Your task to perform on an android device: check google app version Image 0: 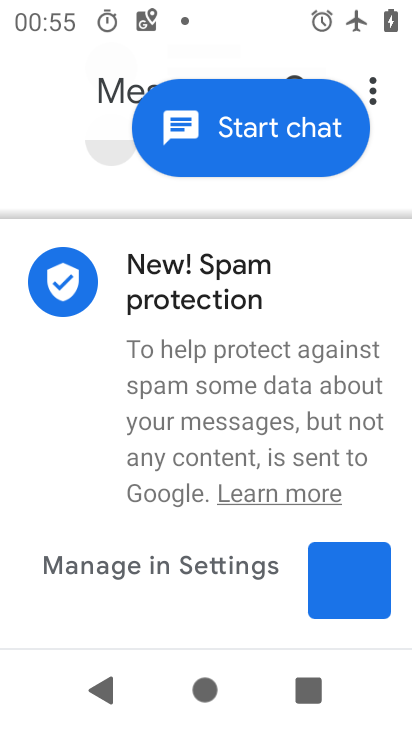
Step 0: press home button
Your task to perform on an android device: check google app version Image 1: 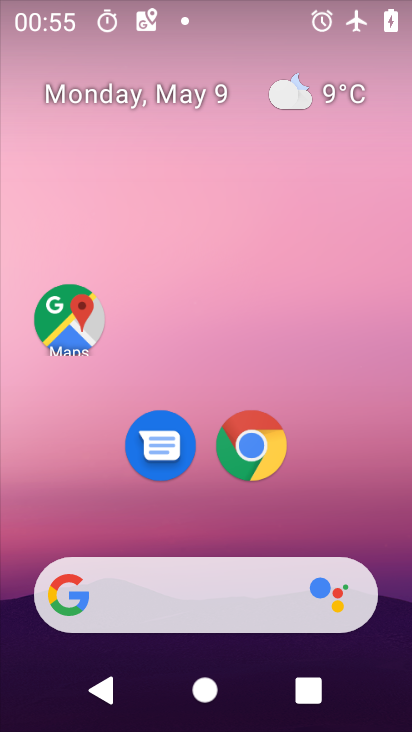
Step 1: drag from (380, 526) to (351, 13)
Your task to perform on an android device: check google app version Image 2: 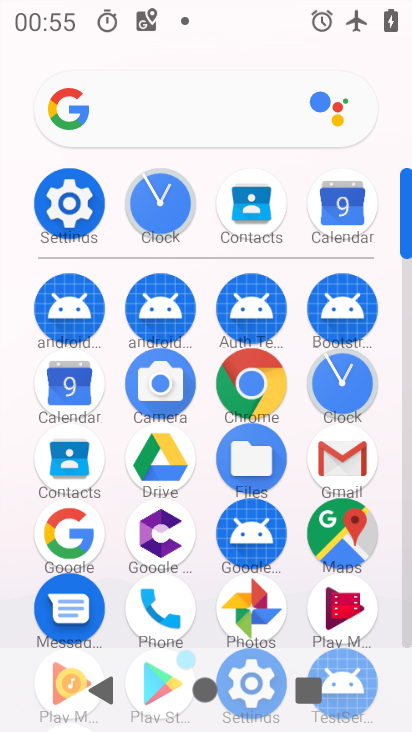
Step 2: click (72, 535)
Your task to perform on an android device: check google app version Image 3: 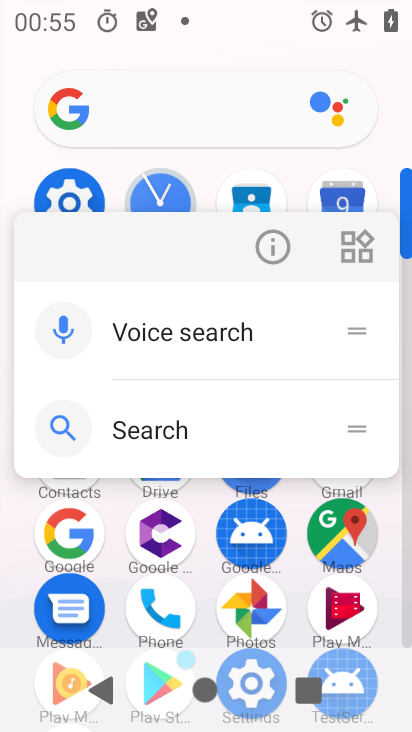
Step 3: click (268, 254)
Your task to perform on an android device: check google app version Image 4: 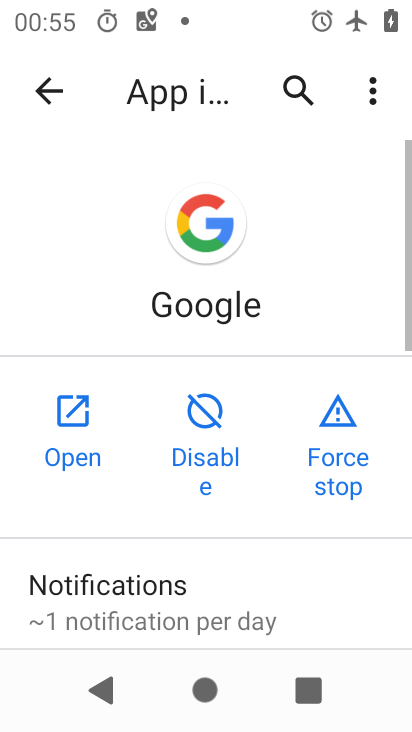
Step 4: drag from (212, 537) to (227, 84)
Your task to perform on an android device: check google app version Image 5: 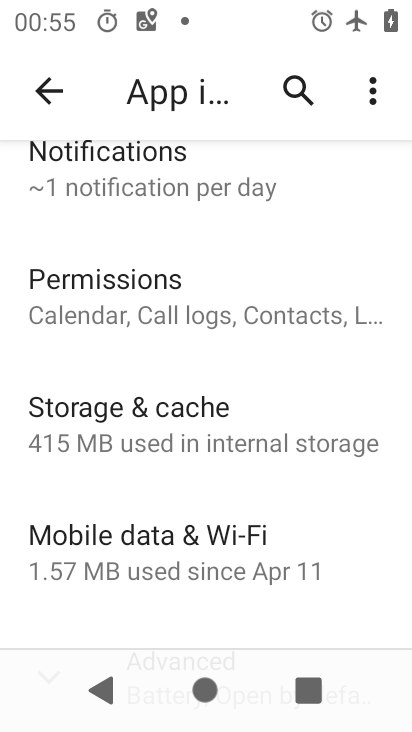
Step 5: drag from (220, 494) to (187, 169)
Your task to perform on an android device: check google app version Image 6: 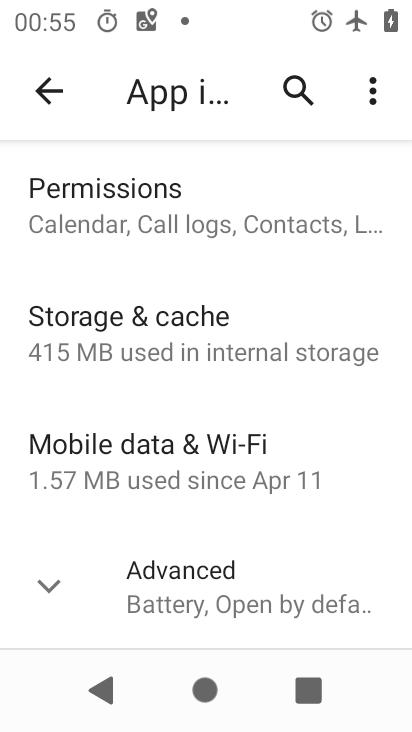
Step 6: click (56, 593)
Your task to perform on an android device: check google app version Image 7: 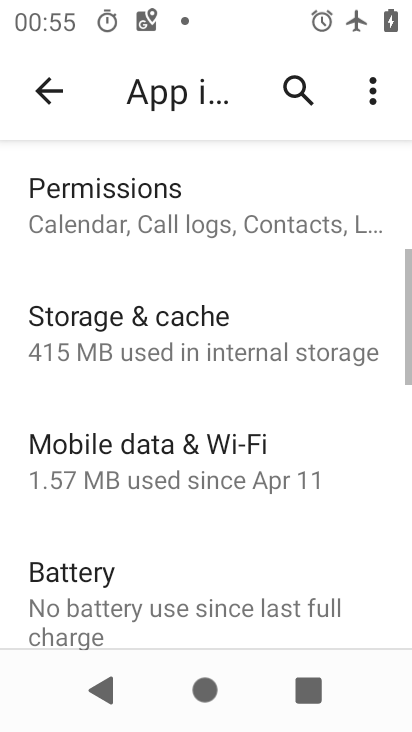
Step 7: task complete